Your task to perform on an android device: Go to Yahoo.com Image 0: 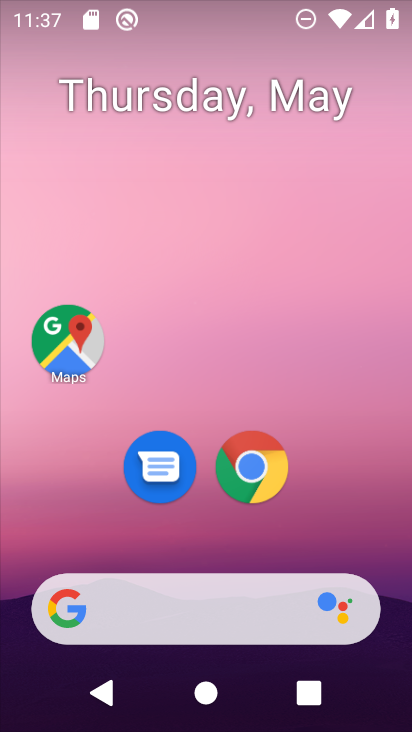
Step 0: drag from (260, 550) to (258, 241)
Your task to perform on an android device: Go to Yahoo.com Image 1: 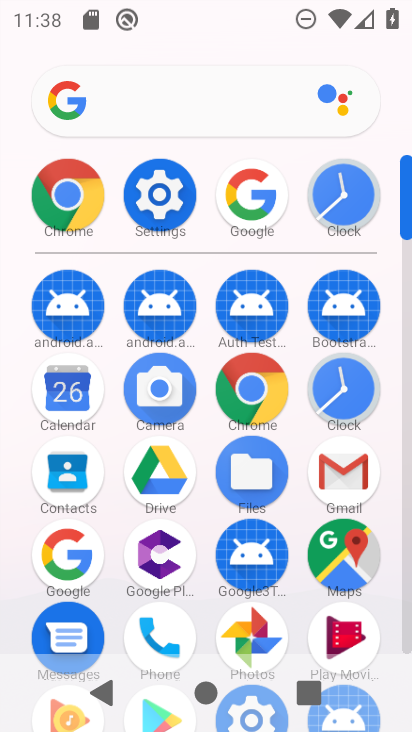
Step 1: click (248, 381)
Your task to perform on an android device: Go to Yahoo.com Image 2: 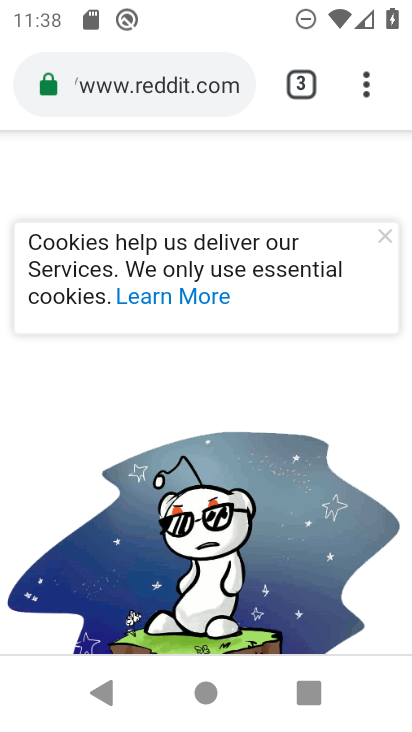
Step 2: click (304, 91)
Your task to perform on an android device: Go to Yahoo.com Image 3: 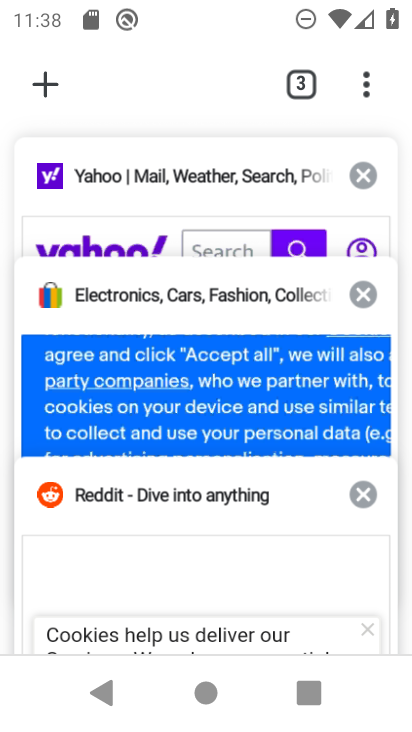
Step 3: click (54, 98)
Your task to perform on an android device: Go to Yahoo.com Image 4: 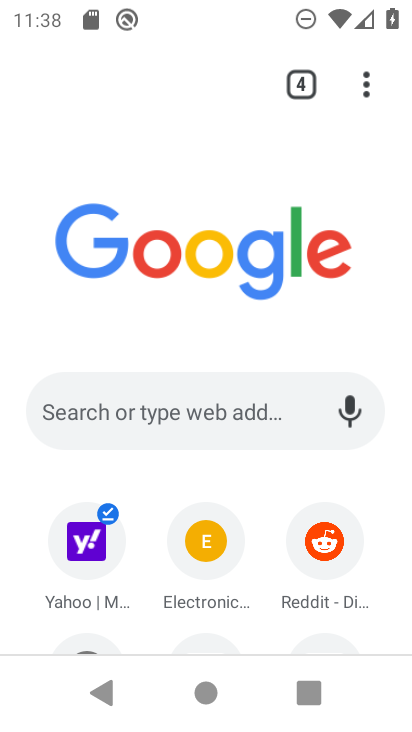
Step 4: click (78, 546)
Your task to perform on an android device: Go to Yahoo.com Image 5: 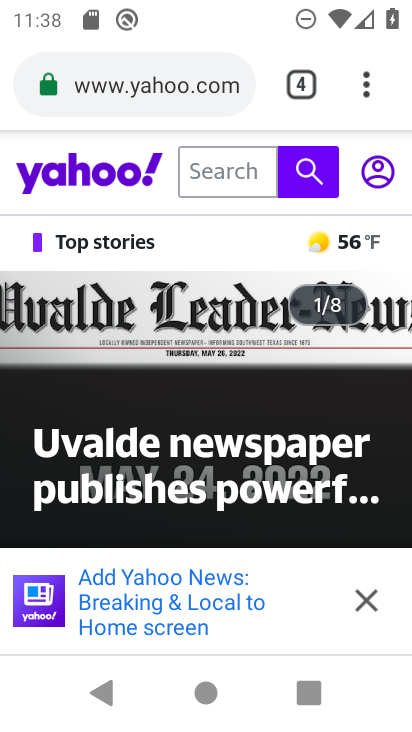
Step 5: task complete